Your task to perform on an android device: turn on notifications settings in the gmail app Image 0: 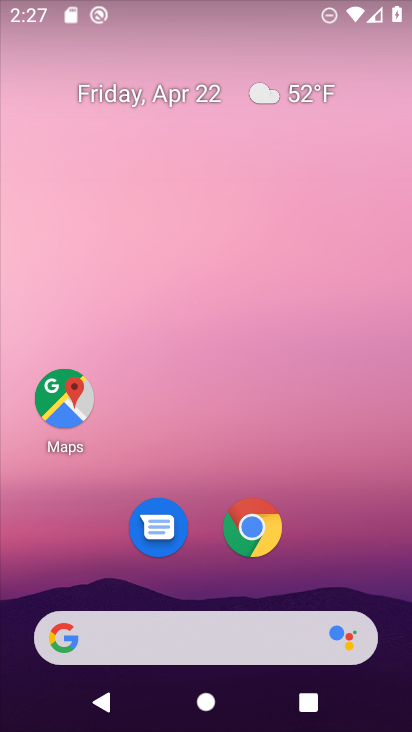
Step 0: drag from (329, 548) to (342, 35)
Your task to perform on an android device: turn on notifications settings in the gmail app Image 1: 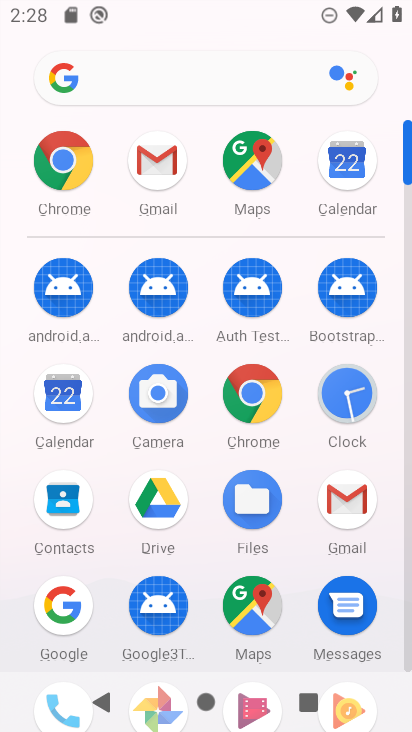
Step 1: click (156, 140)
Your task to perform on an android device: turn on notifications settings in the gmail app Image 2: 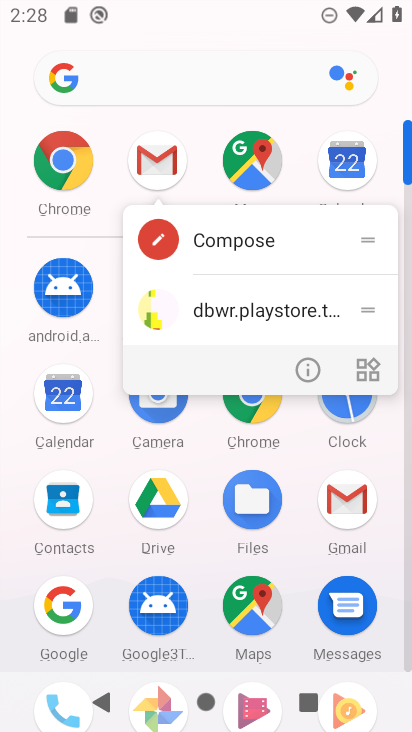
Step 2: click (302, 371)
Your task to perform on an android device: turn on notifications settings in the gmail app Image 3: 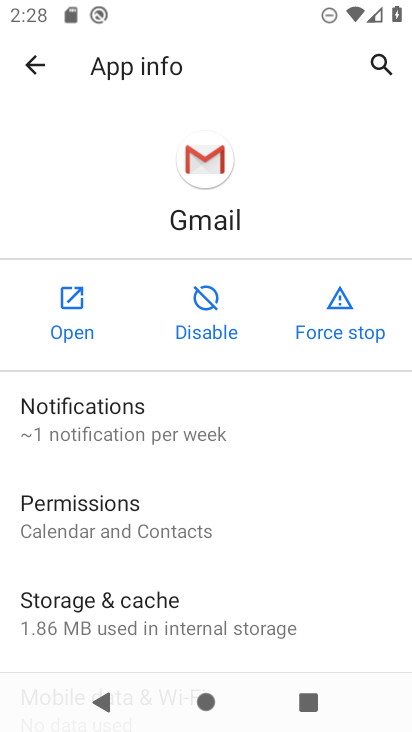
Step 3: click (234, 428)
Your task to perform on an android device: turn on notifications settings in the gmail app Image 4: 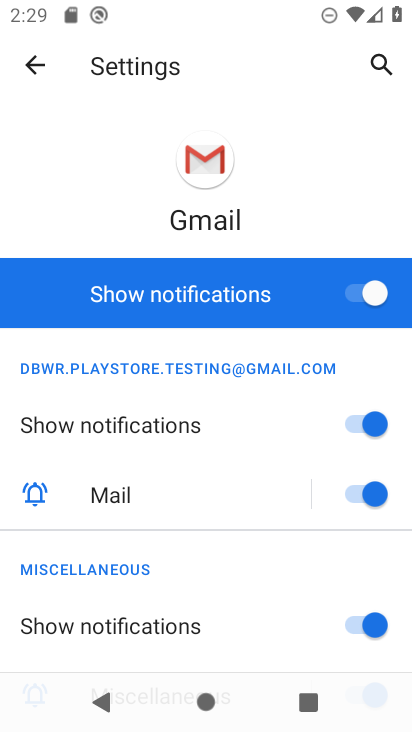
Step 4: task complete